Your task to perform on an android device: turn on improve location accuracy Image 0: 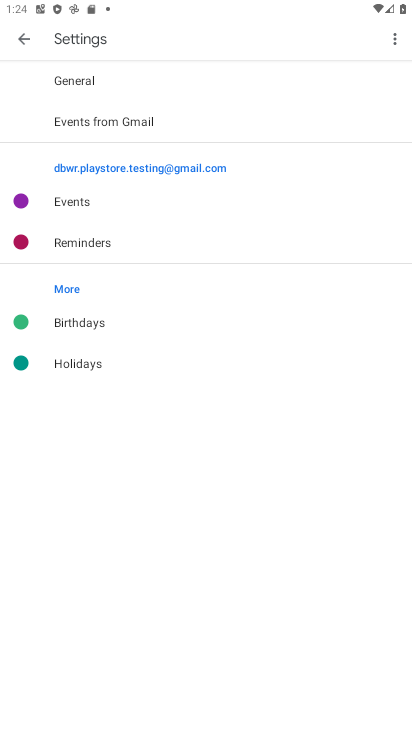
Step 0: press home button
Your task to perform on an android device: turn on improve location accuracy Image 1: 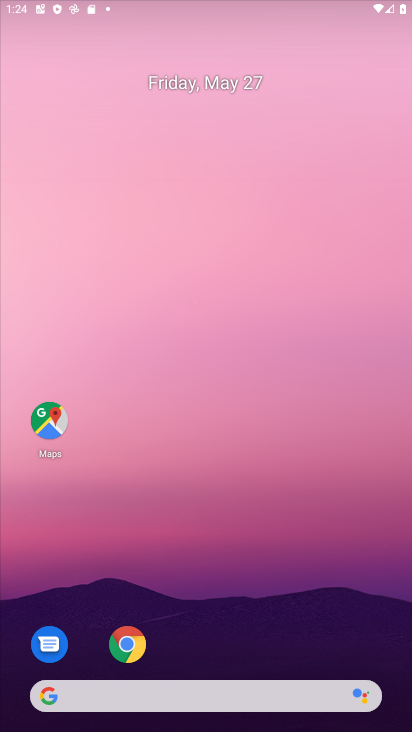
Step 1: drag from (333, 663) to (257, 25)
Your task to perform on an android device: turn on improve location accuracy Image 2: 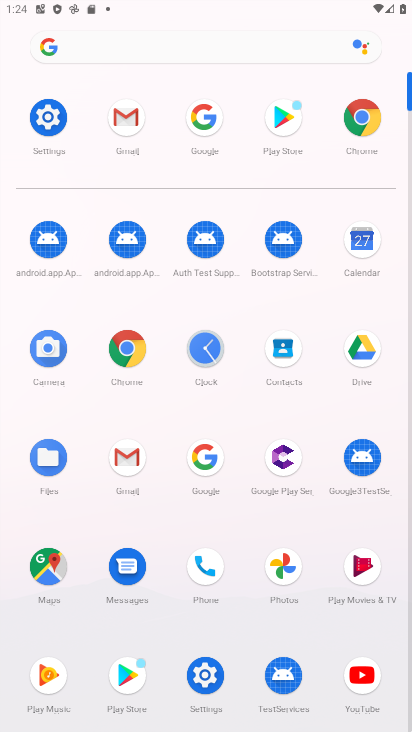
Step 2: click (61, 125)
Your task to perform on an android device: turn on improve location accuracy Image 3: 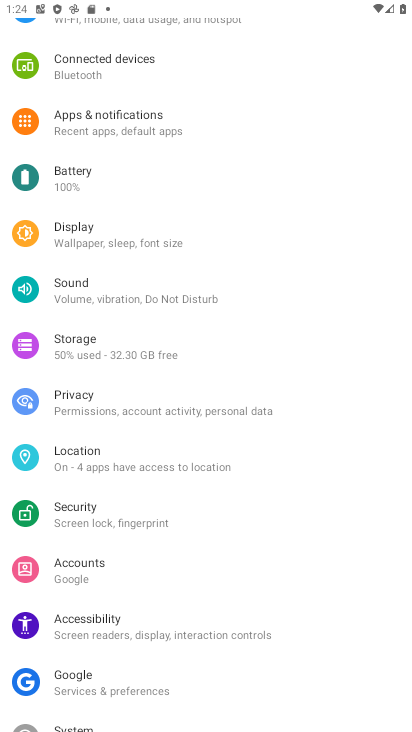
Step 3: click (100, 458)
Your task to perform on an android device: turn on improve location accuracy Image 4: 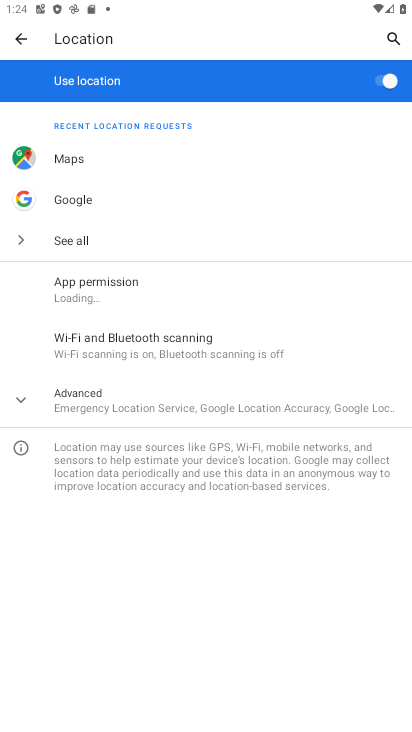
Step 4: click (90, 392)
Your task to perform on an android device: turn on improve location accuracy Image 5: 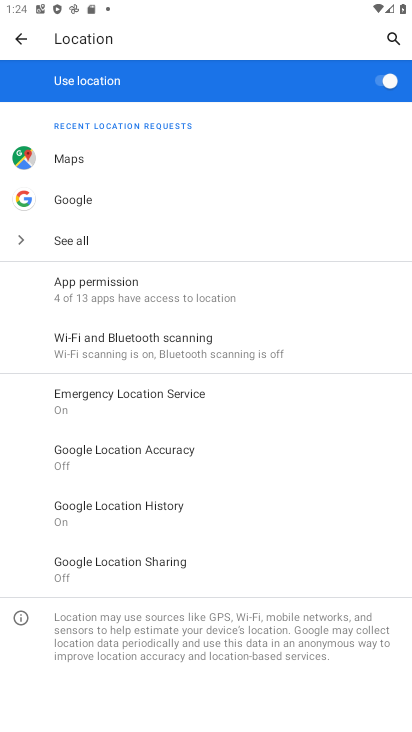
Step 5: click (167, 456)
Your task to perform on an android device: turn on improve location accuracy Image 6: 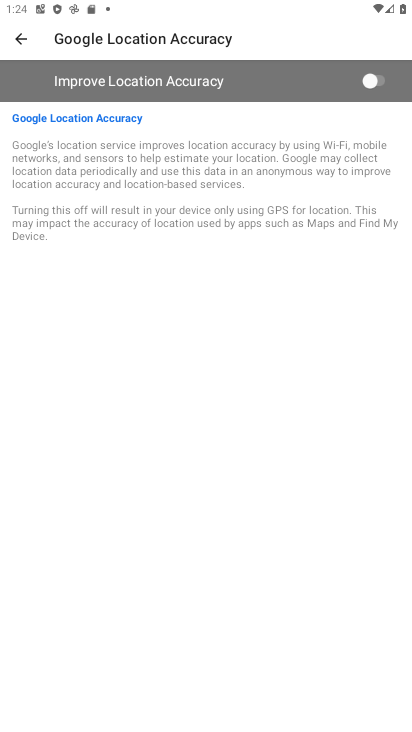
Step 6: click (388, 89)
Your task to perform on an android device: turn on improve location accuracy Image 7: 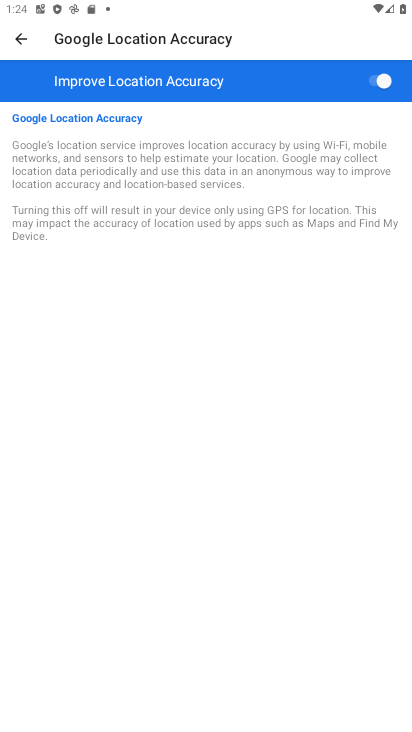
Step 7: task complete